Your task to perform on an android device: Show me productivity apps on the Play Store Image 0: 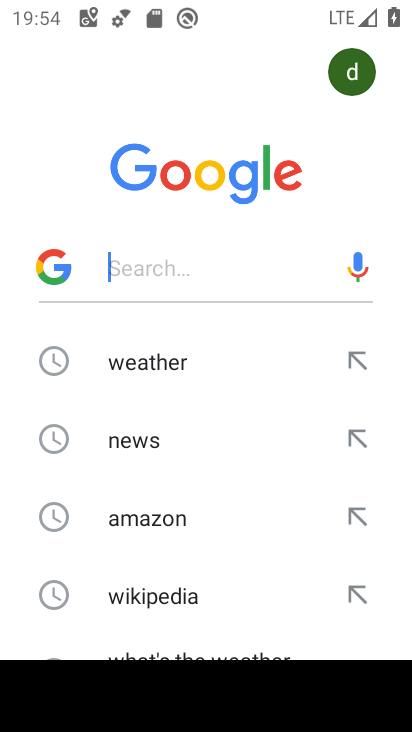
Step 0: press home button
Your task to perform on an android device: Show me productivity apps on the Play Store Image 1: 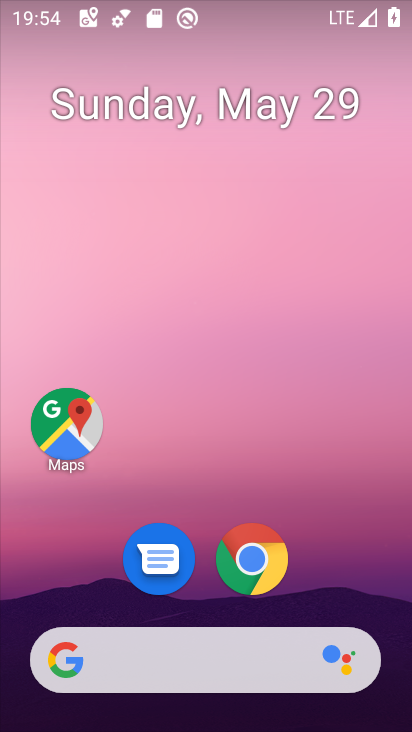
Step 1: drag from (394, 615) to (376, 167)
Your task to perform on an android device: Show me productivity apps on the Play Store Image 2: 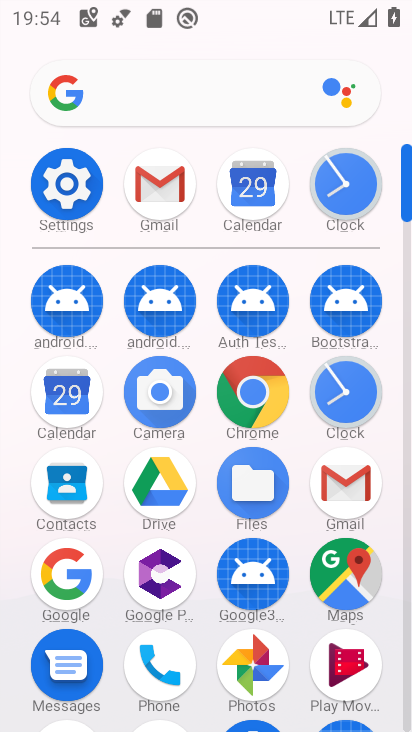
Step 2: drag from (389, 563) to (389, 319)
Your task to perform on an android device: Show me productivity apps on the Play Store Image 3: 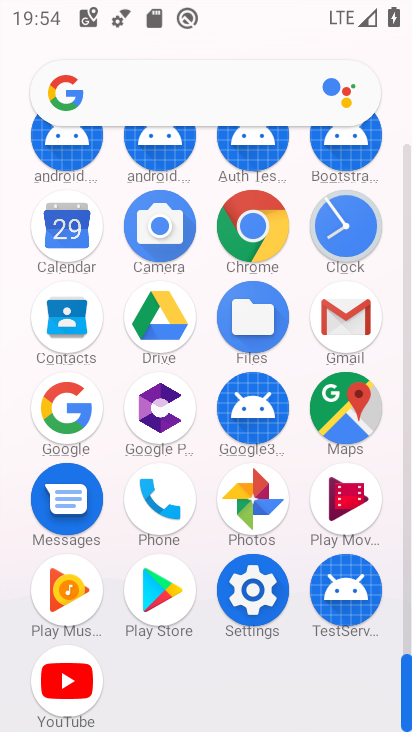
Step 3: click (156, 585)
Your task to perform on an android device: Show me productivity apps on the Play Store Image 4: 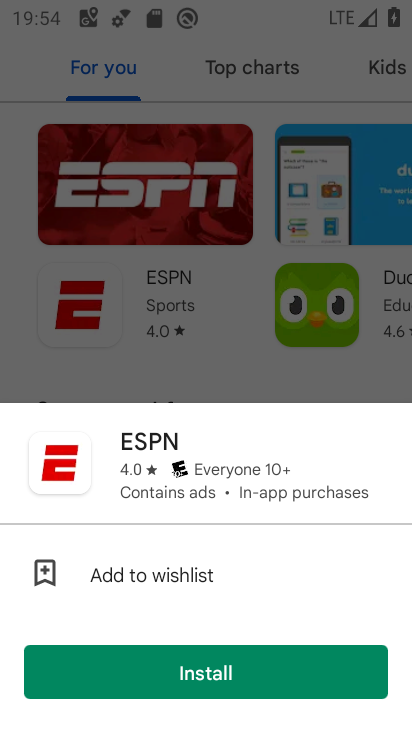
Step 4: click (125, 374)
Your task to perform on an android device: Show me productivity apps on the Play Store Image 5: 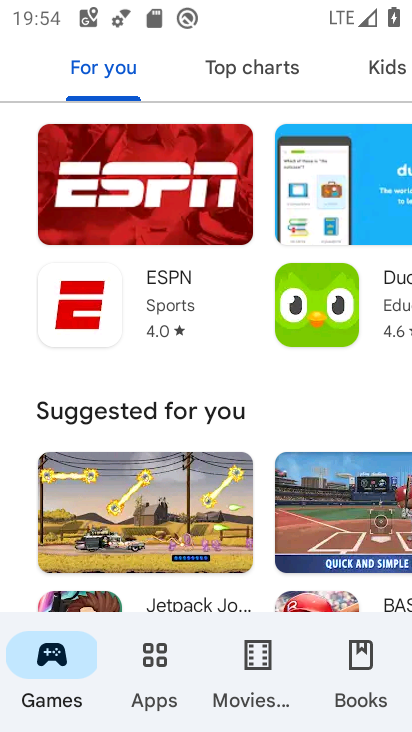
Step 5: click (144, 667)
Your task to perform on an android device: Show me productivity apps on the Play Store Image 6: 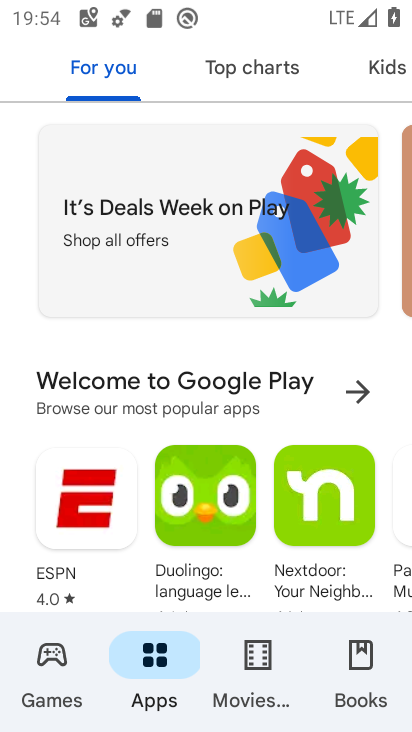
Step 6: task complete